Your task to perform on an android device: toggle show notifications on the lock screen Image 0: 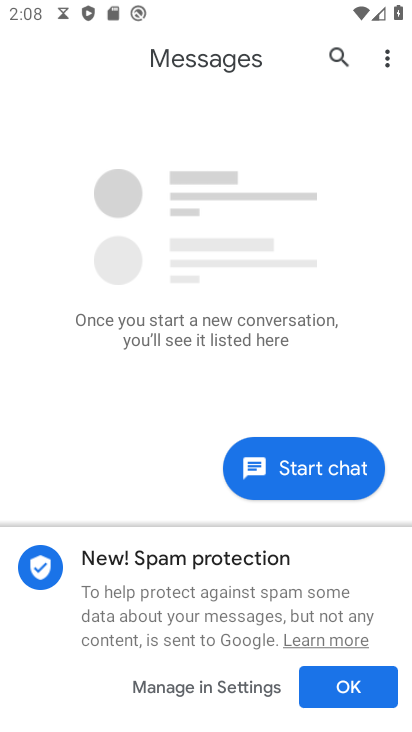
Step 0: press back button
Your task to perform on an android device: toggle show notifications on the lock screen Image 1: 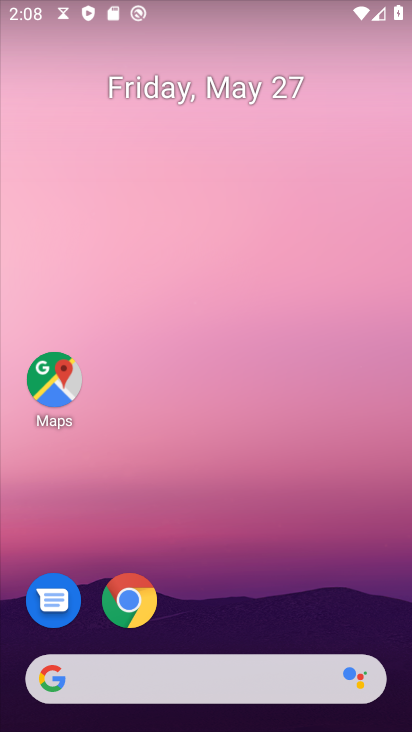
Step 1: drag from (195, 475) to (191, 18)
Your task to perform on an android device: toggle show notifications on the lock screen Image 2: 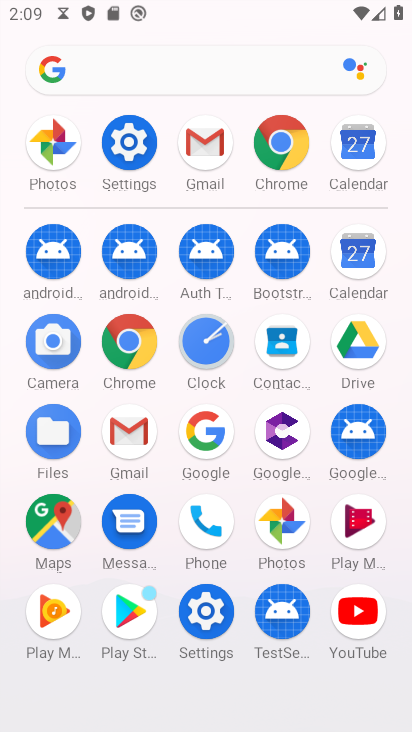
Step 2: drag from (1, 536) to (5, 241)
Your task to perform on an android device: toggle show notifications on the lock screen Image 3: 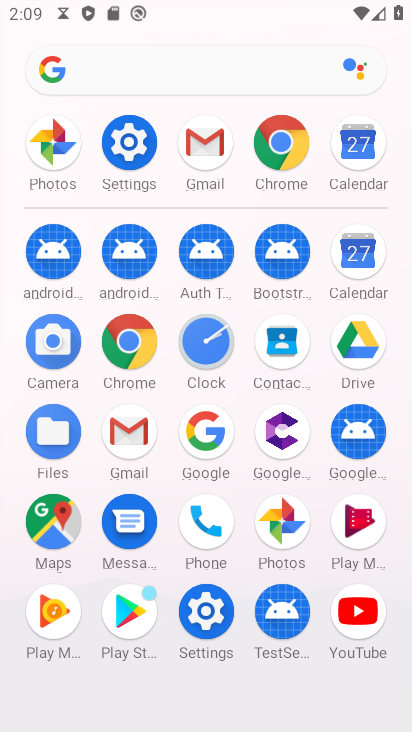
Step 3: click (279, 515)
Your task to perform on an android device: toggle show notifications on the lock screen Image 4: 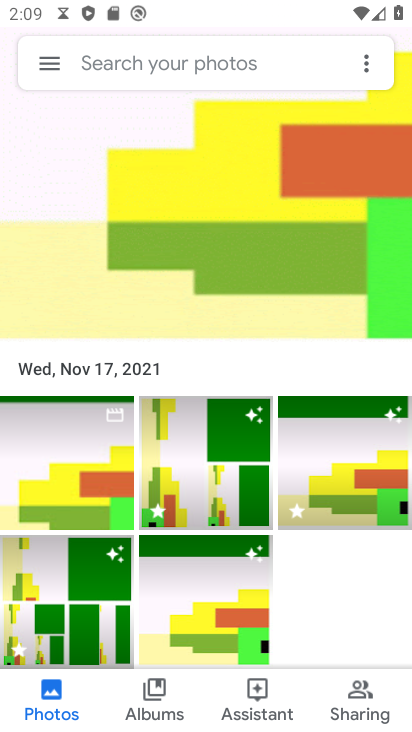
Step 4: press back button
Your task to perform on an android device: toggle show notifications on the lock screen Image 5: 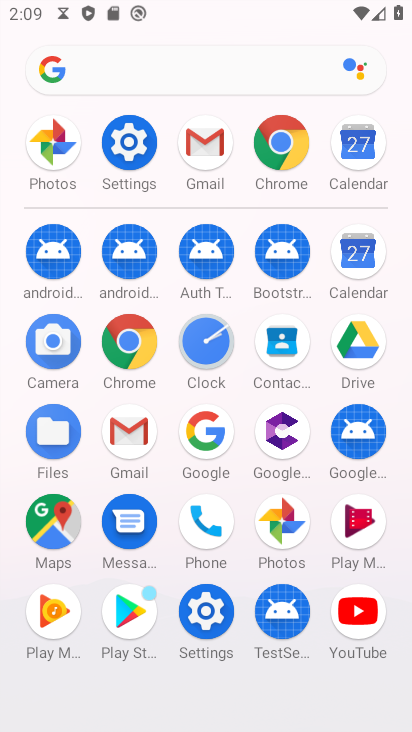
Step 5: click (127, 139)
Your task to perform on an android device: toggle show notifications on the lock screen Image 6: 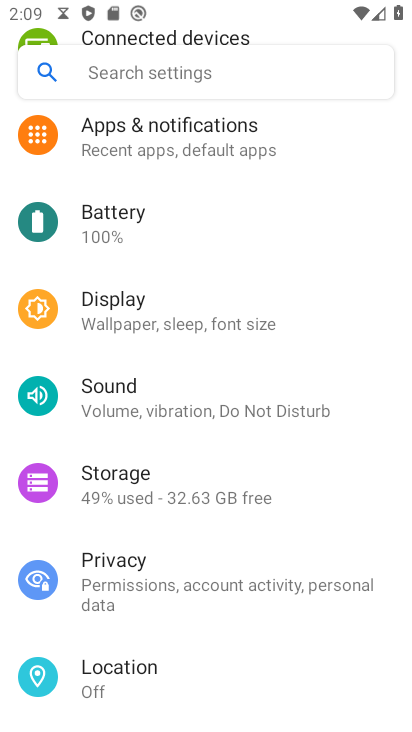
Step 6: click (139, 144)
Your task to perform on an android device: toggle show notifications on the lock screen Image 7: 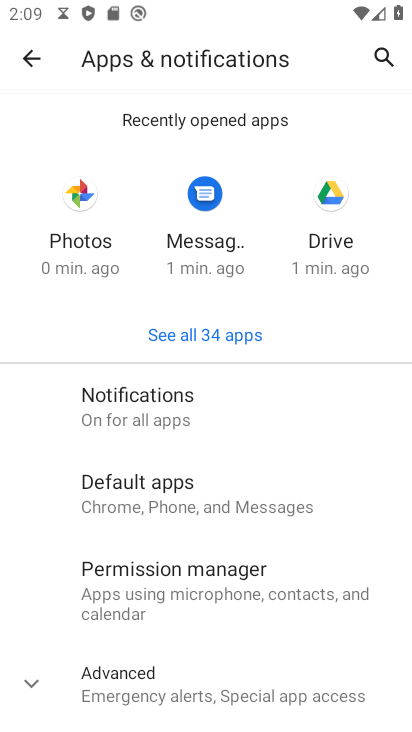
Step 7: click (191, 408)
Your task to perform on an android device: toggle show notifications on the lock screen Image 8: 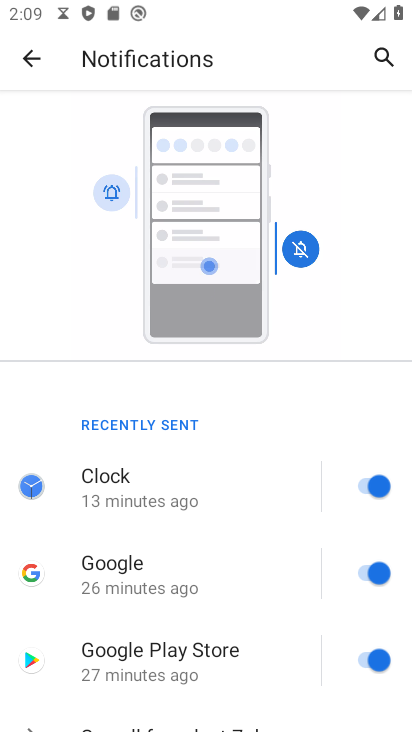
Step 8: drag from (236, 560) to (238, 141)
Your task to perform on an android device: toggle show notifications on the lock screen Image 9: 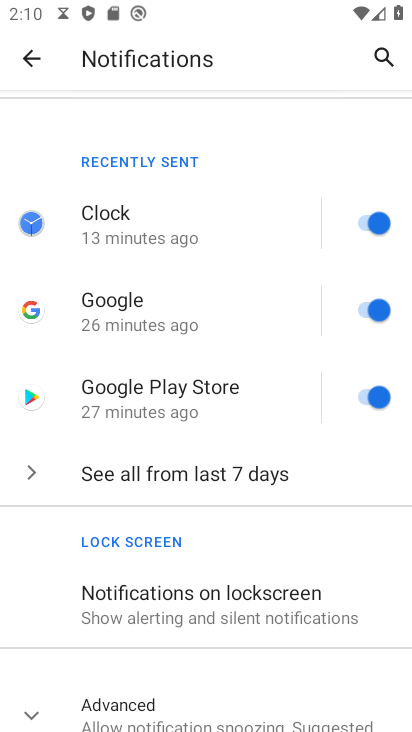
Step 9: click (226, 616)
Your task to perform on an android device: toggle show notifications on the lock screen Image 10: 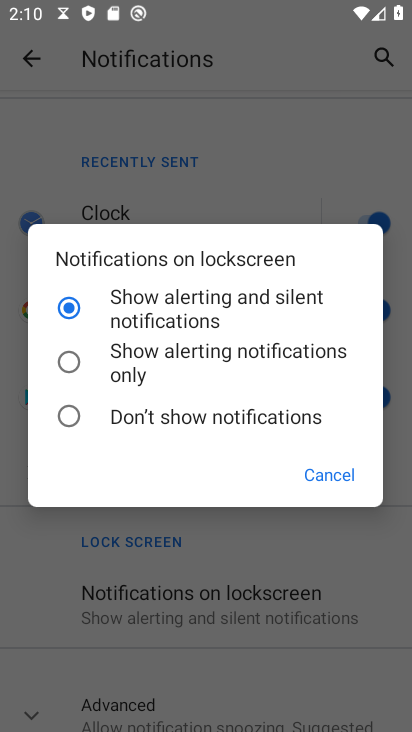
Step 10: click (175, 294)
Your task to perform on an android device: toggle show notifications on the lock screen Image 11: 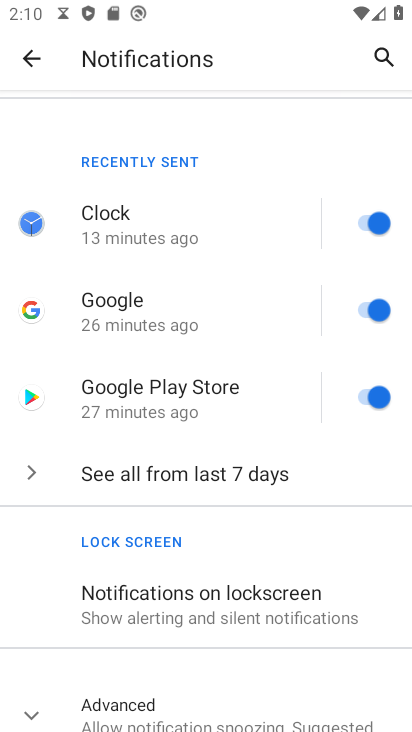
Step 11: task complete